Your task to perform on an android device: Find coffee shops on Maps Image 0: 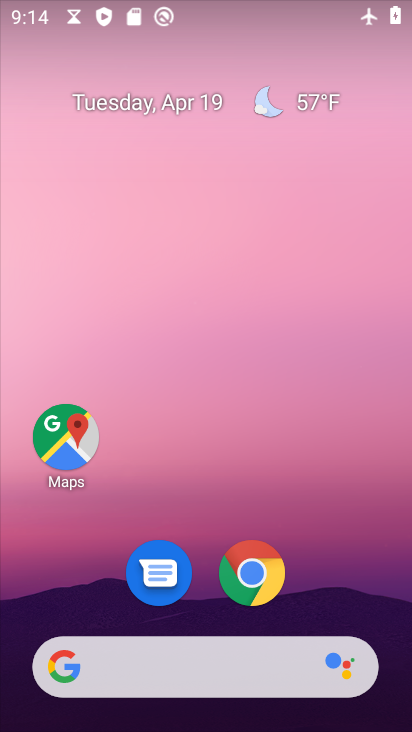
Step 0: click (51, 449)
Your task to perform on an android device: Find coffee shops on Maps Image 1: 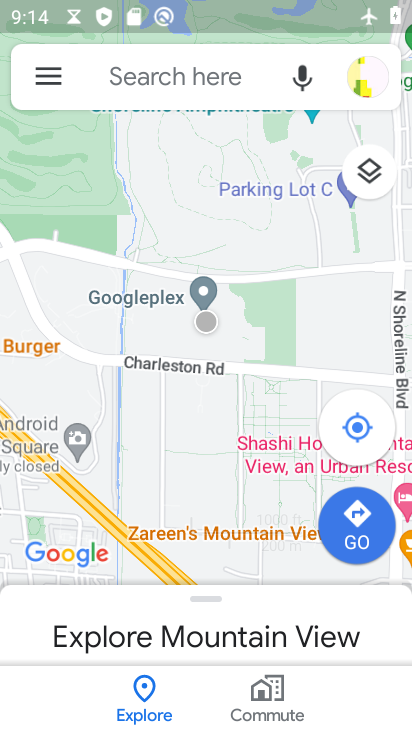
Step 1: click (222, 85)
Your task to perform on an android device: Find coffee shops on Maps Image 2: 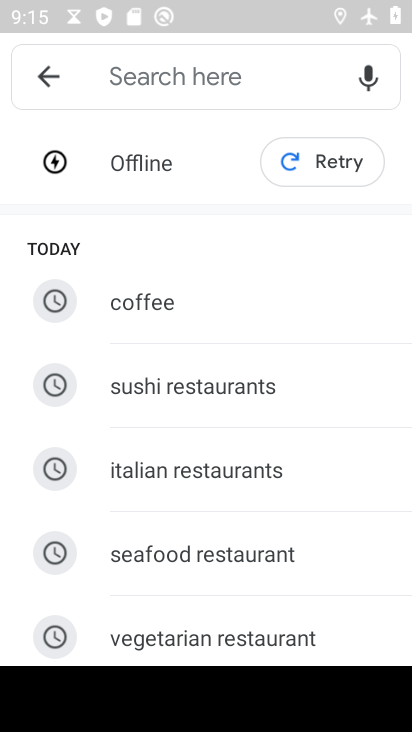
Step 2: type "coffee shops"
Your task to perform on an android device: Find coffee shops on Maps Image 3: 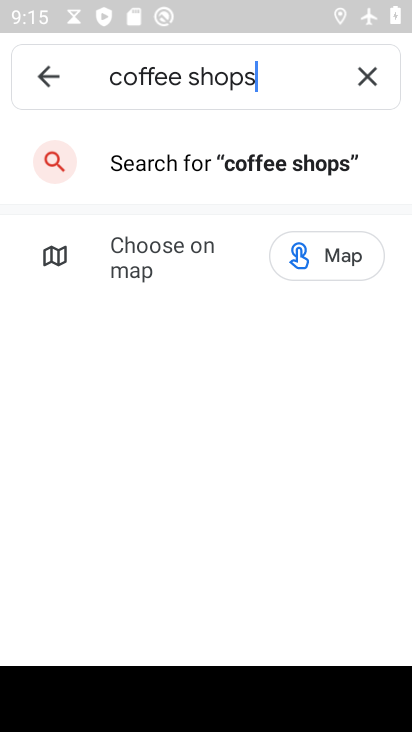
Step 3: click (296, 156)
Your task to perform on an android device: Find coffee shops on Maps Image 4: 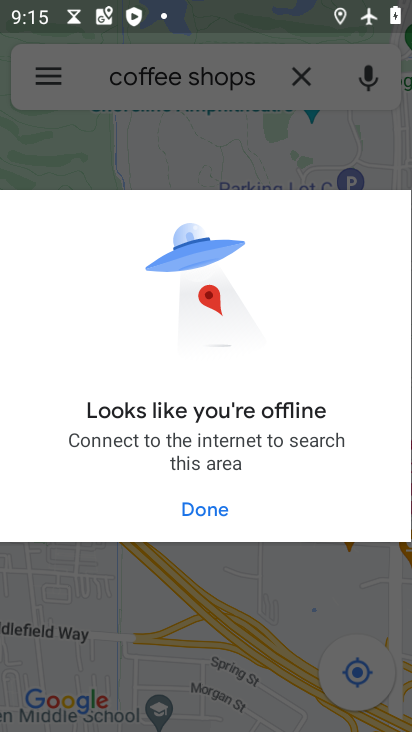
Step 4: click (201, 503)
Your task to perform on an android device: Find coffee shops on Maps Image 5: 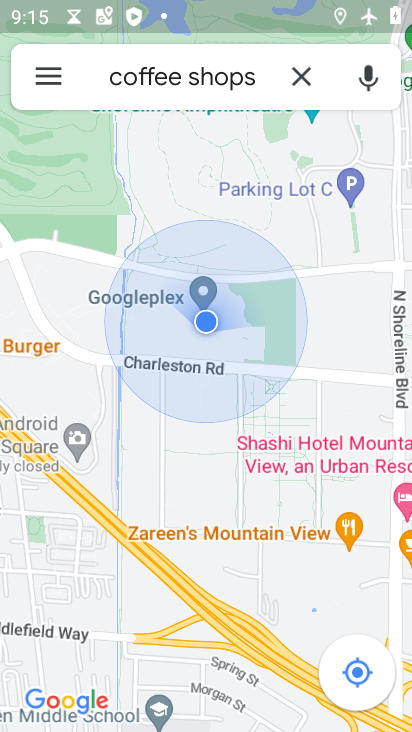
Step 5: task complete